Your task to perform on an android device: Is it going to rain this weekend? Image 0: 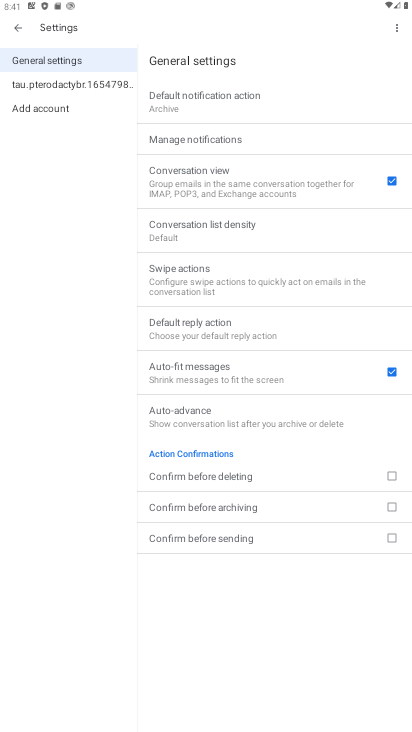
Step 0: press home button
Your task to perform on an android device: Is it going to rain this weekend? Image 1: 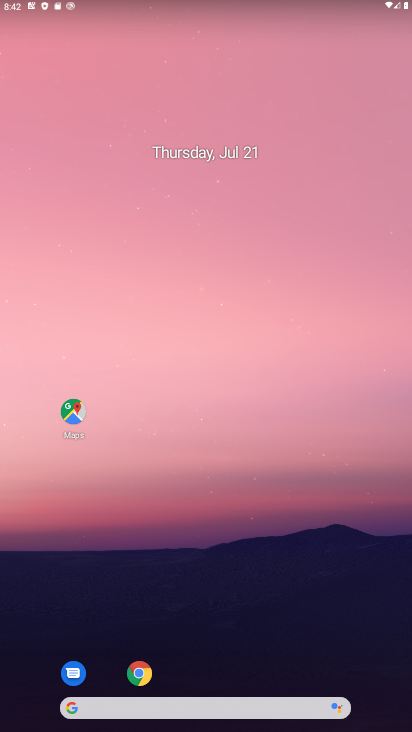
Step 1: drag from (218, 724) to (215, 231)
Your task to perform on an android device: Is it going to rain this weekend? Image 2: 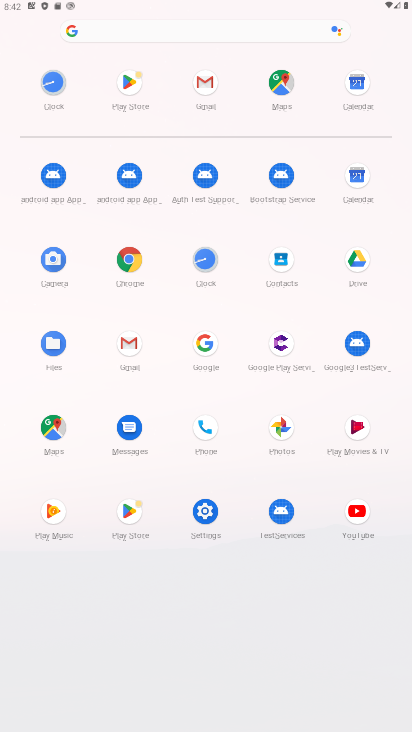
Step 2: click (206, 341)
Your task to perform on an android device: Is it going to rain this weekend? Image 3: 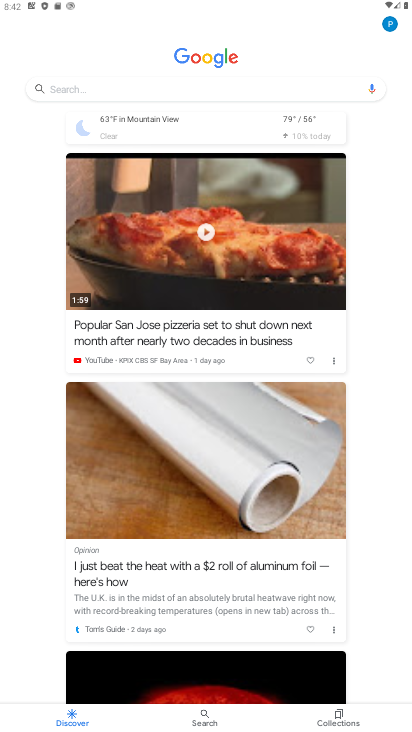
Step 3: click (168, 114)
Your task to perform on an android device: Is it going to rain this weekend? Image 4: 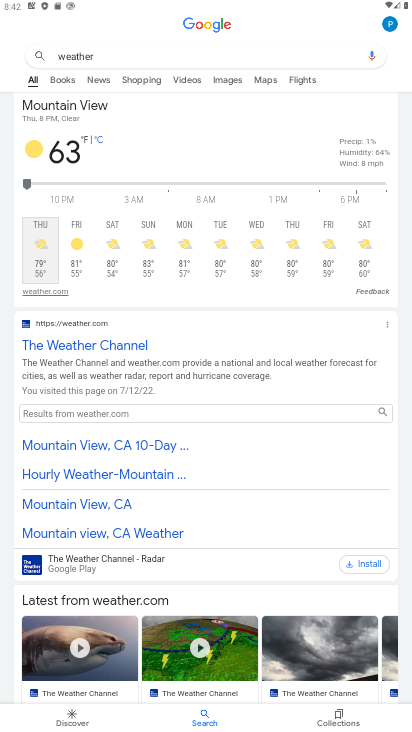
Step 4: click (65, 108)
Your task to perform on an android device: Is it going to rain this weekend? Image 5: 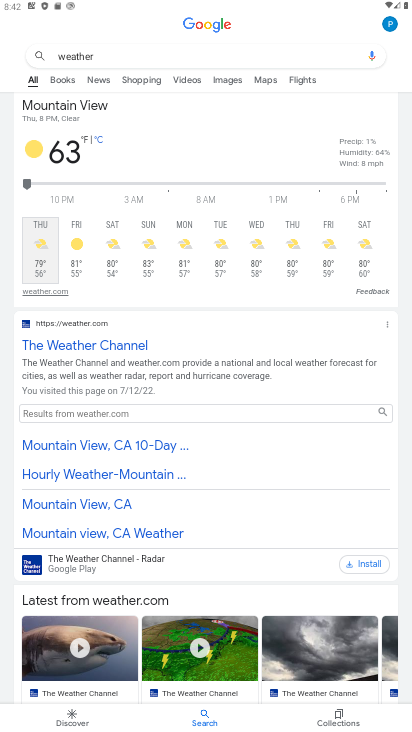
Step 5: task complete